Your task to perform on an android device: Go to eBay Image 0: 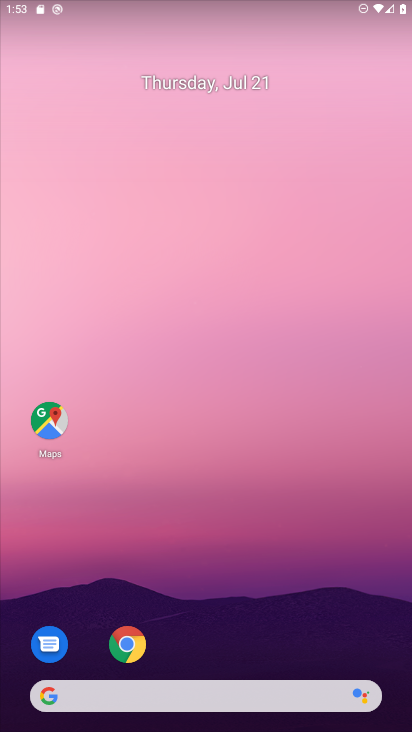
Step 0: click (128, 643)
Your task to perform on an android device: Go to eBay Image 1: 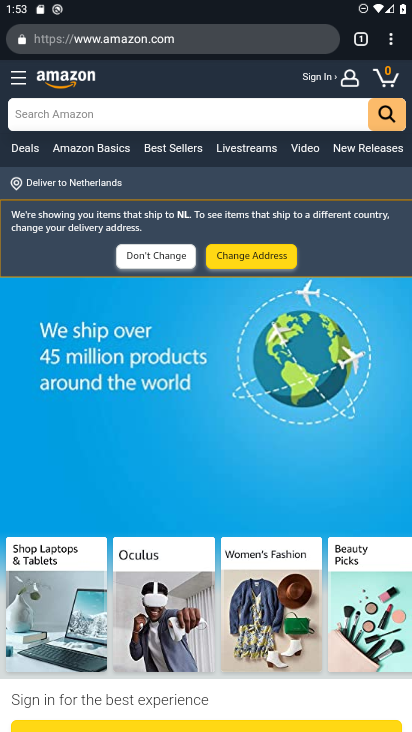
Step 1: click (266, 44)
Your task to perform on an android device: Go to eBay Image 2: 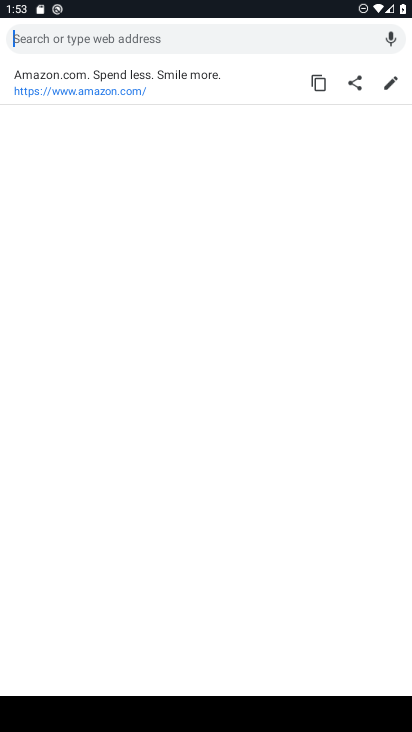
Step 2: type "ebay"
Your task to perform on an android device: Go to eBay Image 3: 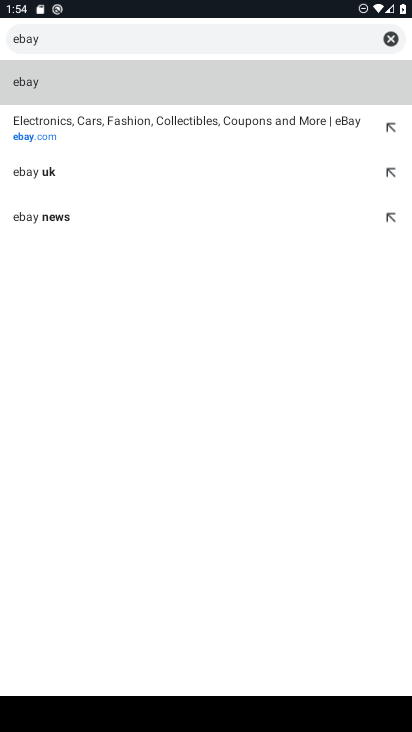
Step 3: click (251, 84)
Your task to perform on an android device: Go to eBay Image 4: 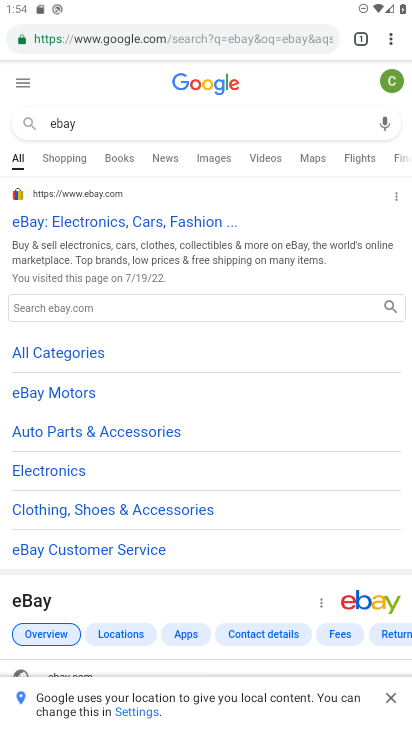
Step 4: click (80, 210)
Your task to perform on an android device: Go to eBay Image 5: 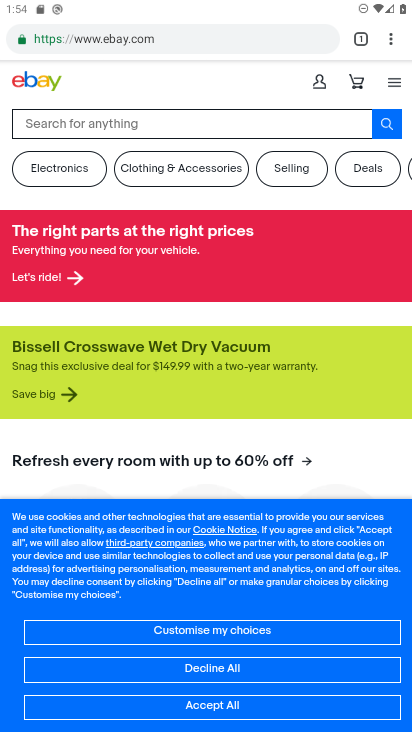
Step 5: task complete